Your task to perform on an android device: toggle location history Image 0: 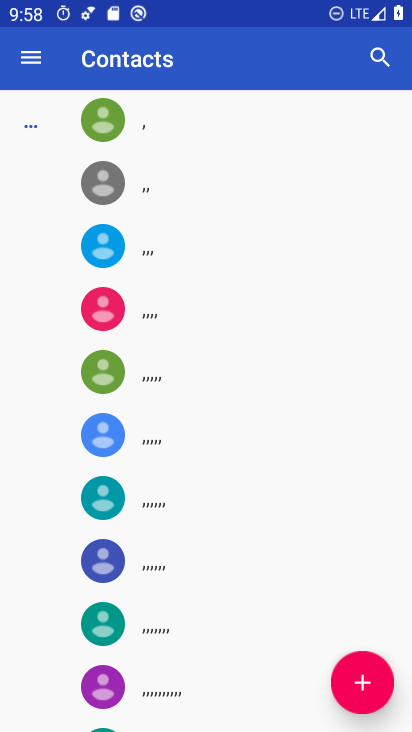
Step 0: press home button
Your task to perform on an android device: toggle location history Image 1: 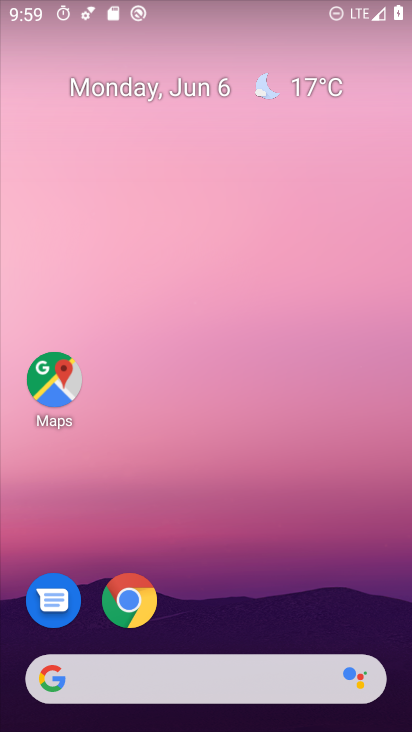
Step 1: drag from (298, 511) to (213, 38)
Your task to perform on an android device: toggle location history Image 2: 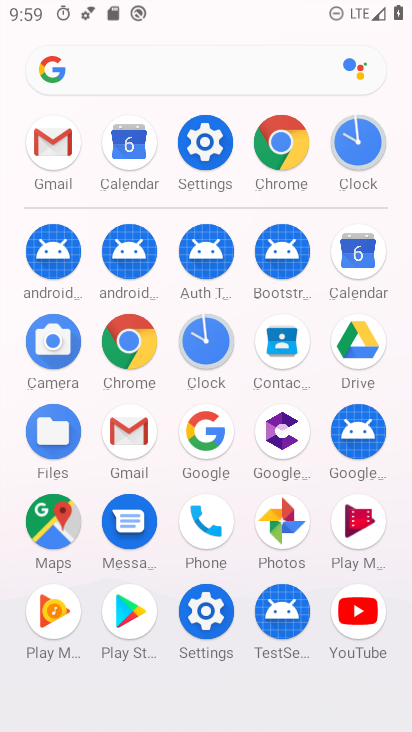
Step 2: click (206, 154)
Your task to perform on an android device: toggle location history Image 3: 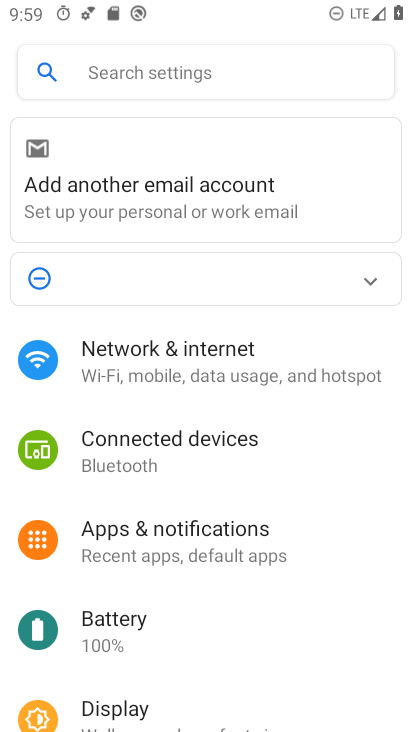
Step 3: drag from (228, 654) to (255, 47)
Your task to perform on an android device: toggle location history Image 4: 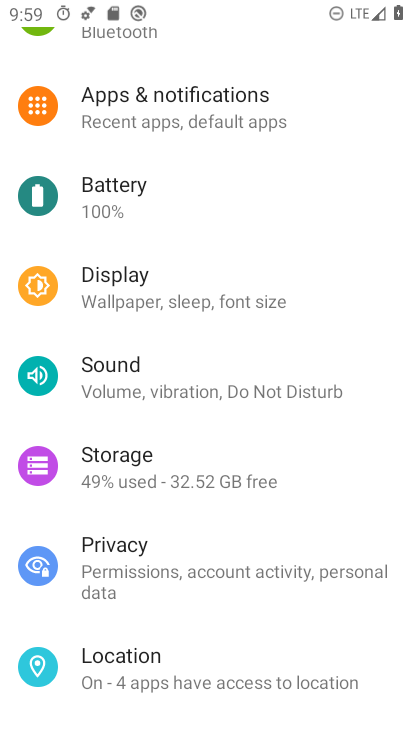
Step 4: click (221, 677)
Your task to perform on an android device: toggle location history Image 5: 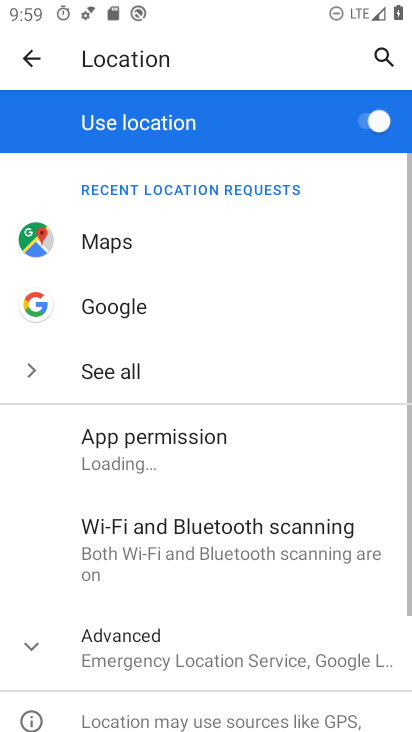
Step 5: drag from (264, 574) to (272, 270)
Your task to perform on an android device: toggle location history Image 6: 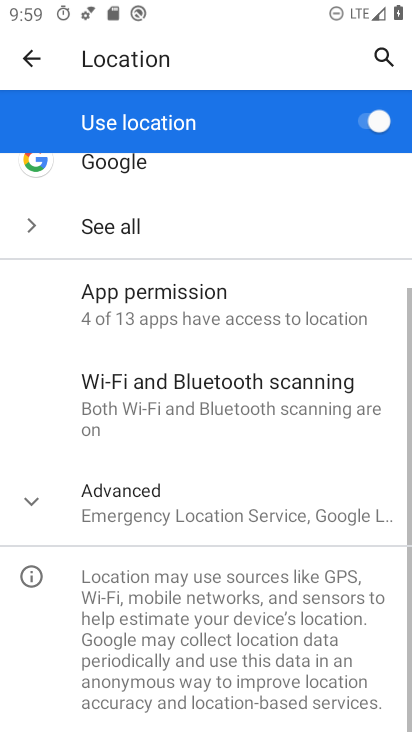
Step 6: click (198, 491)
Your task to perform on an android device: toggle location history Image 7: 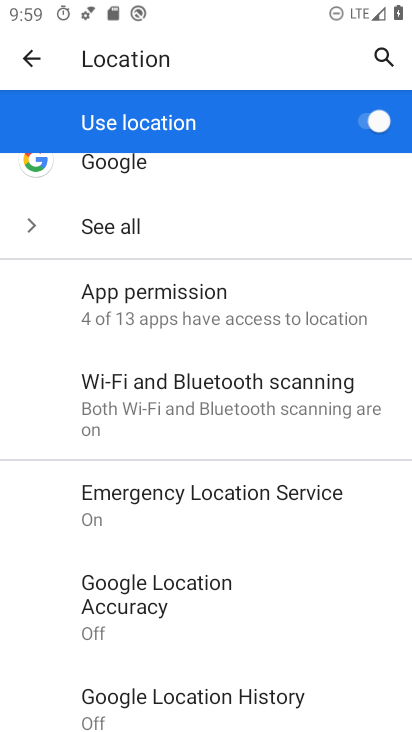
Step 7: click (258, 686)
Your task to perform on an android device: toggle location history Image 8: 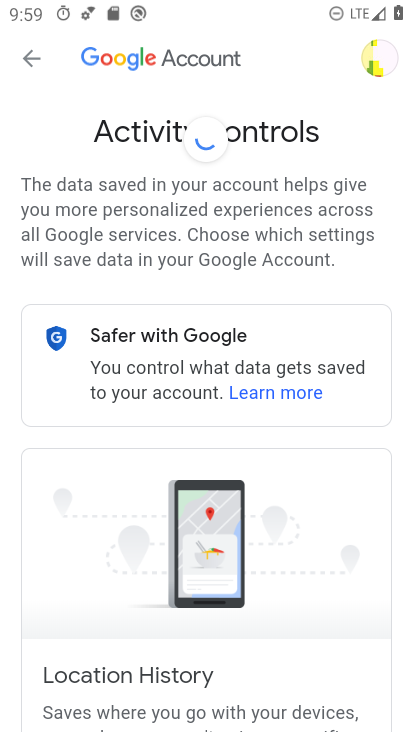
Step 8: drag from (259, 609) to (242, 222)
Your task to perform on an android device: toggle location history Image 9: 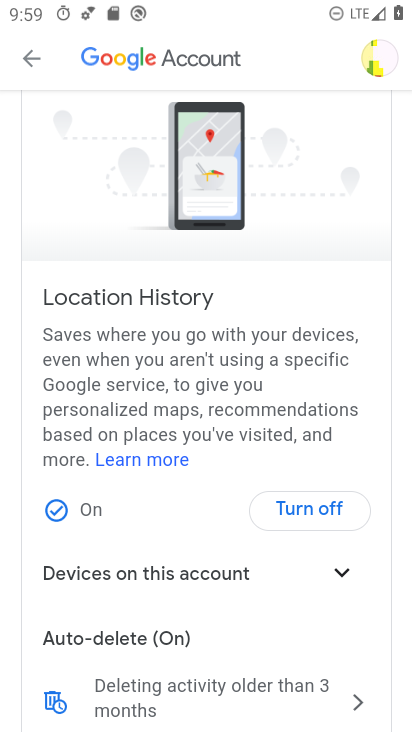
Step 9: drag from (260, 481) to (257, 377)
Your task to perform on an android device: toggle location history Image 10: 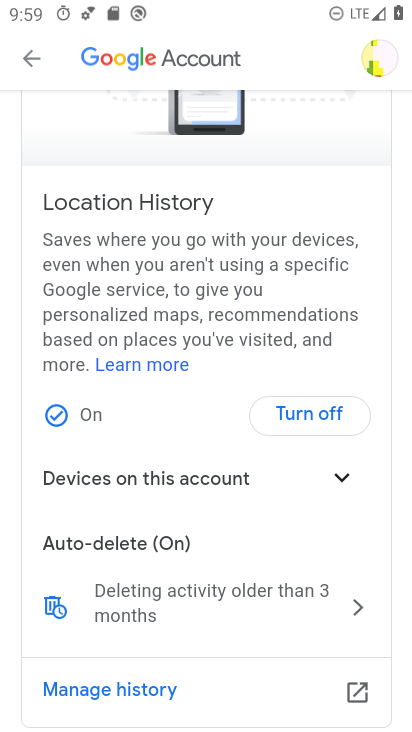
Step 10: click (322, 425)
Your task to perform on an android device: toggle location history Image 11: 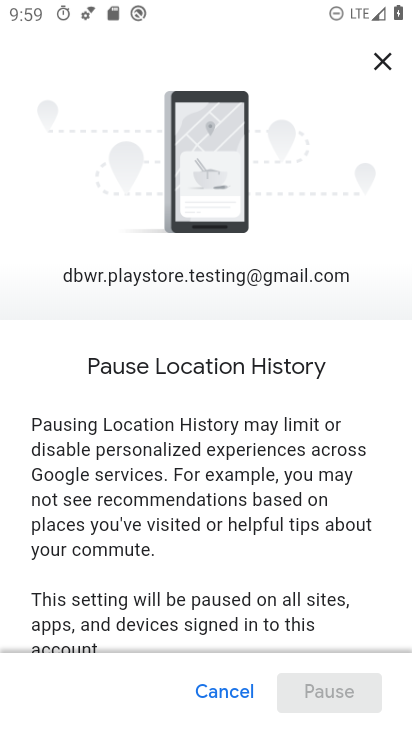
Step 11: drag from (245, 613) to (249, 99)
Your task to perform on an android device: toggle location history Image 12: 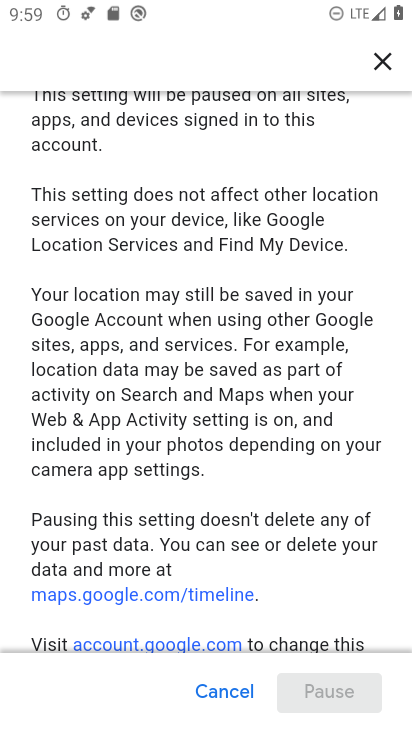
Step 12: drag from (259, 580) to (310, 93)
Your task to perform on an android device: toggle location history Image 13: 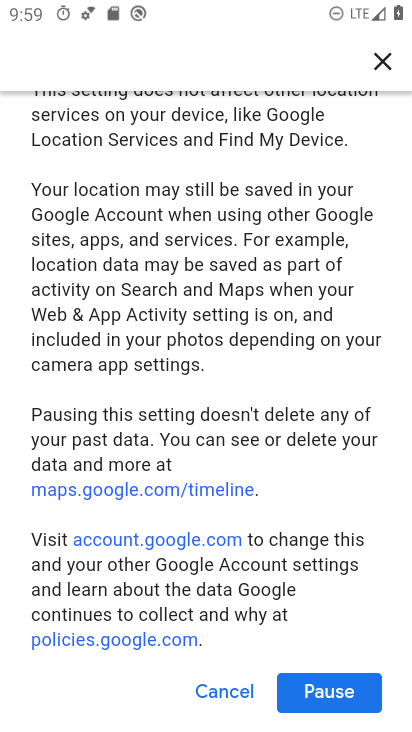
Step 13: click (348, 702)
Your task to perform on an android device: toggle location history Image 14: 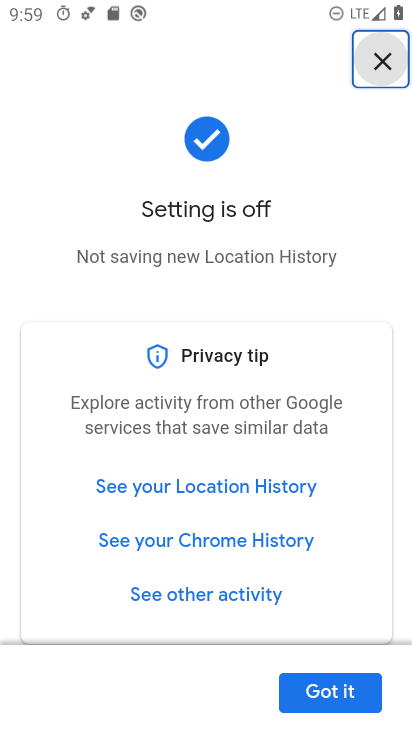
Step 14: drag from (334, 592) to (305, 87)
Your task to perform on an android device: toggle location history Image 15: 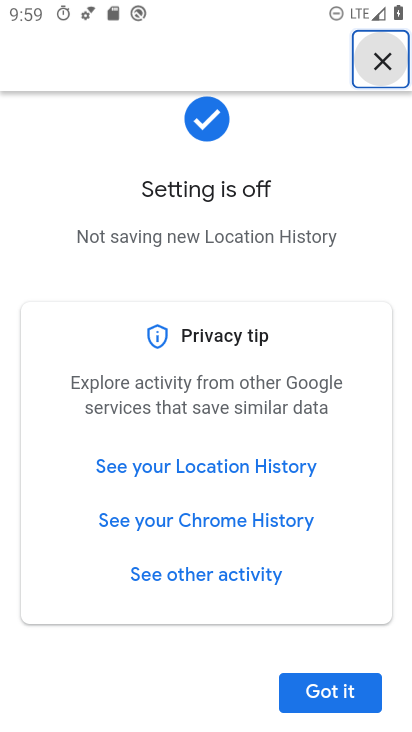
Step 15: click (357, 714)
Your task to perform on an android device: toggle location history Image 16: 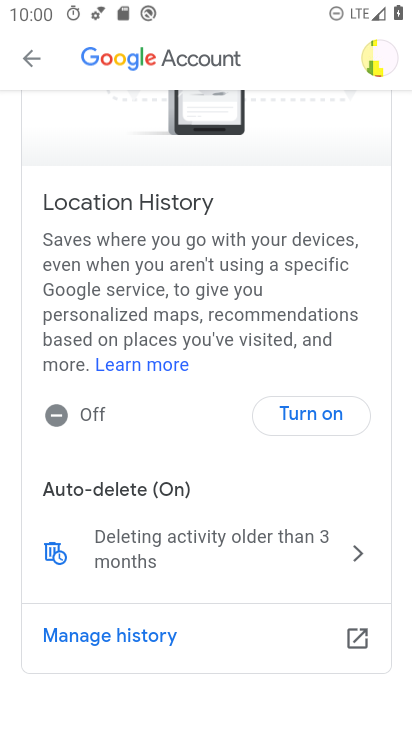
Step 16: task complete